Your task to perform on an android device: check battery use Image 0: 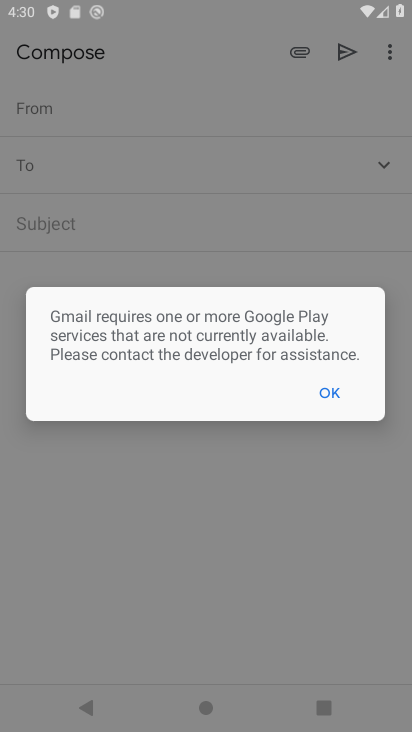
Step 0: drag from (247, 76) to (249, 559)
Your task to perform on an android device: check battery use Image 1: 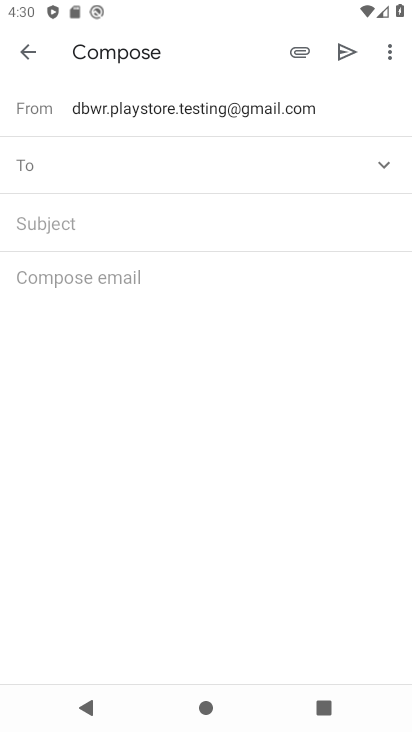
Step 1: drag from (293, 10) to (291, 619)
Your task to perform on an android device: check battery use Image 2: 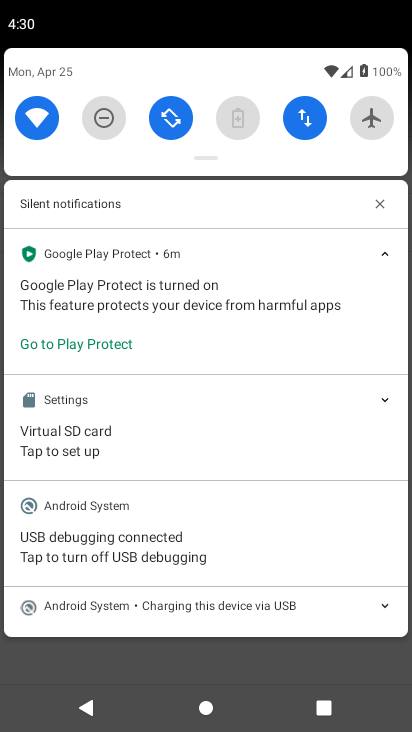
Step 2: press back button
Your task to perform on an android device: check battery use Image 3: 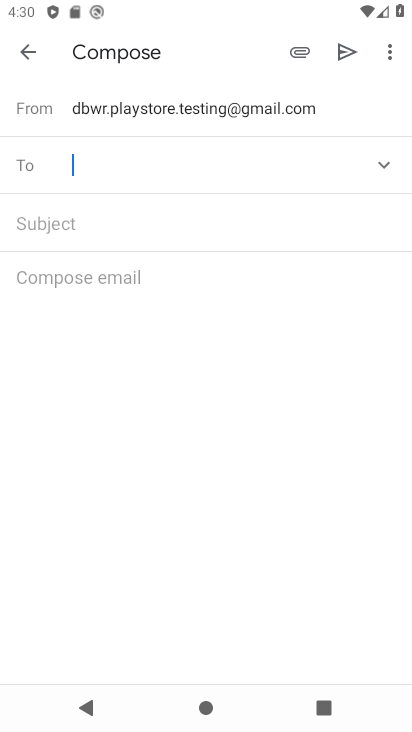
Step 3: press back button
Your task to perform on an android device: check battery use Image 4: 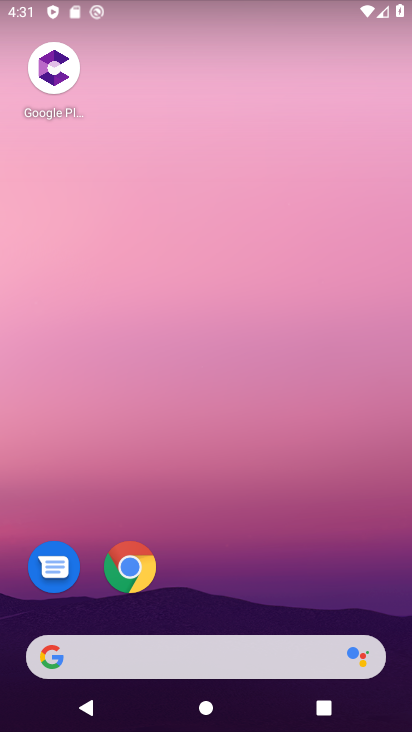
Step 4: drag from (207, 606) to (336, 33)
Your task to perform on an android device: check battery use Image 5: 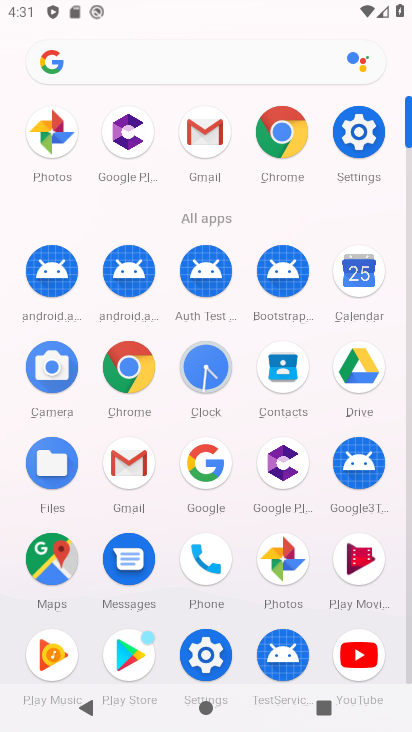
Step 5: click (361, 124)
Your task to perform on an android device: check battery use Image 6: 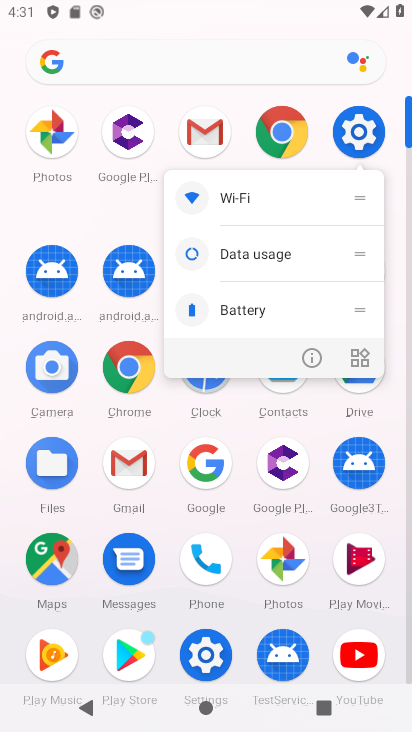
Step 6: click (366, 124)
Your task to perform on an android device: check battery use Image 7: 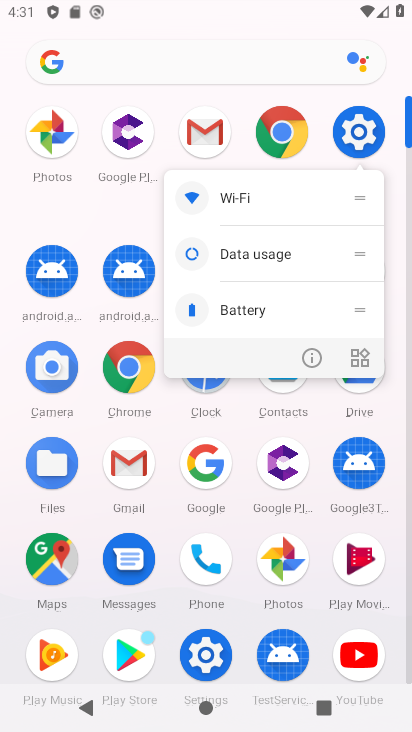
Step 7: click (367, 133)
Your task to perform on an android device: check battery use Image 8: 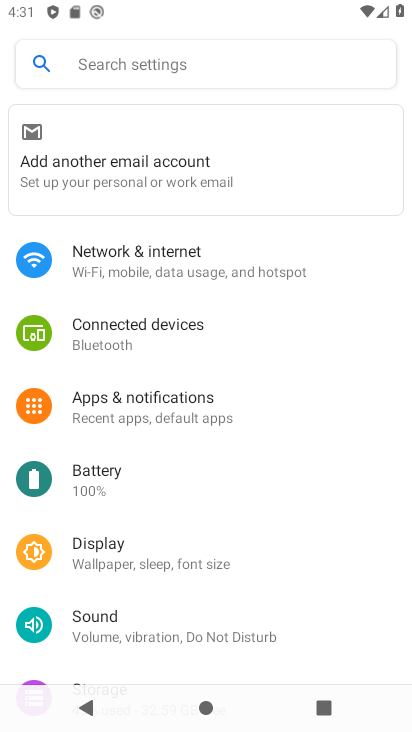
Step 8: click (93, 475)
Your task to perform on an android device: check battery use Image 9: 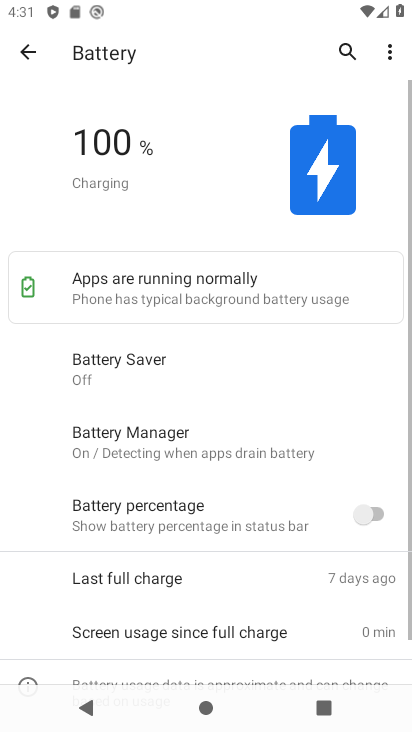
Step 9: click (397, 49)
Your task to perform on an android device: check battery use Image 10: 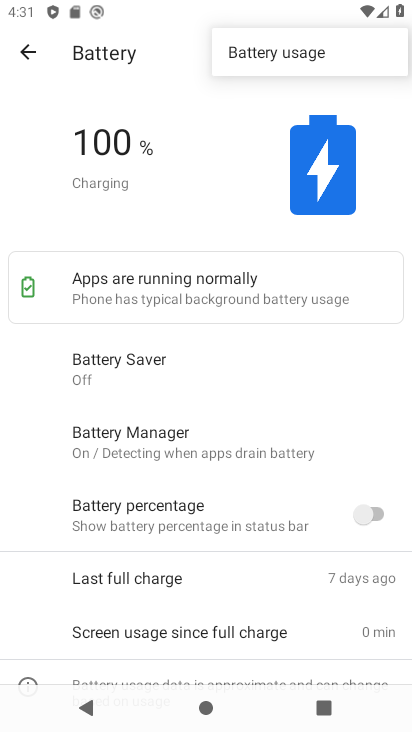
Step 10: click (260, 58)
Your task to perform on an android device: check battery use Image 11: 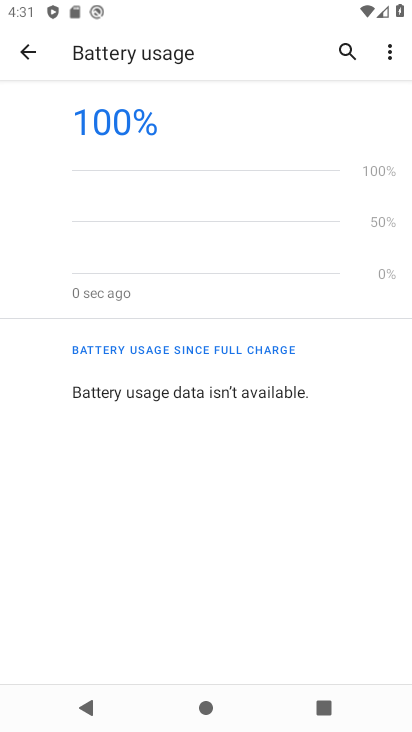
Step 11: task complete